Your task to perform on an android device: Show me the alarms in the clock app Image 0: 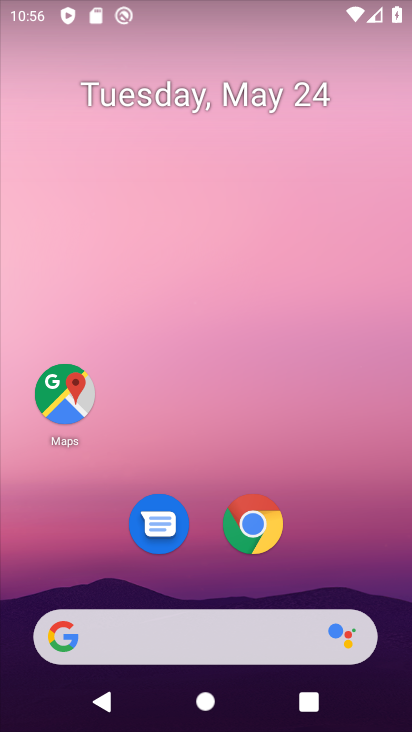
Step 0: drag from (268, 436) to (290, 6)
Your task to perform on an android device: Show me the alarms in the clock app Image 1: 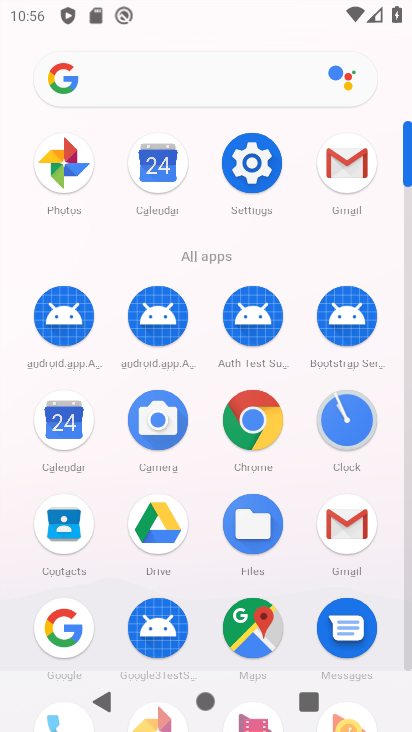
Step 1: click (356, 402)
Your task to perform on an android device: Show me the alarms in the clock app Image 2: 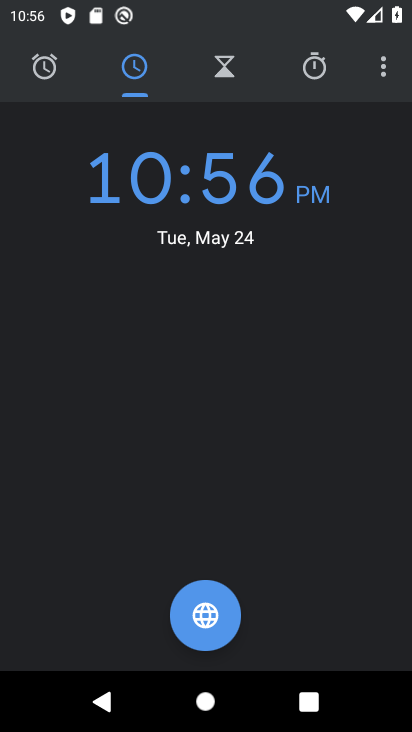
Step 2: click (42, 63)
Your task to perform on an android device: Show me the alarms in the clock app Image 3: 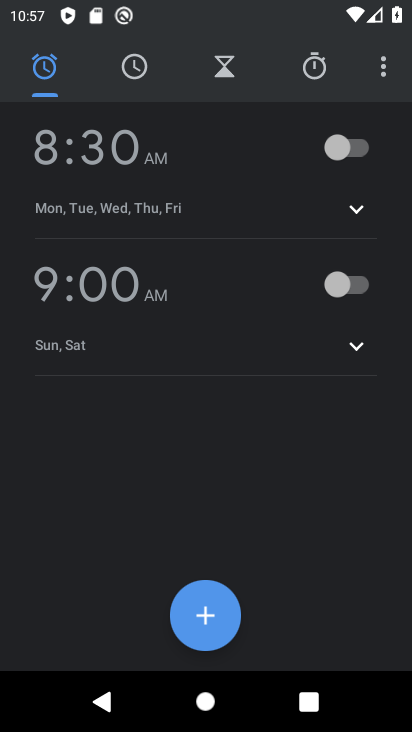
Step 3: task complete